Your task to perform on an android device: open app "Fetch Rewards" Image 0: 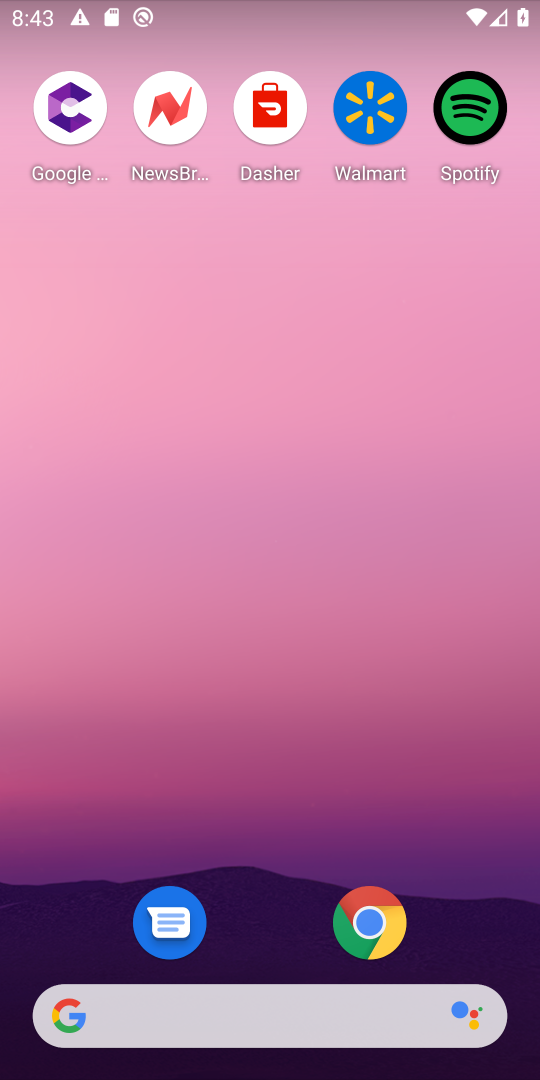
Step 0: drag from (295, 953) to (300, 273)
Your task to perform on an android device: open app "Fetch Rewards" Image 1: 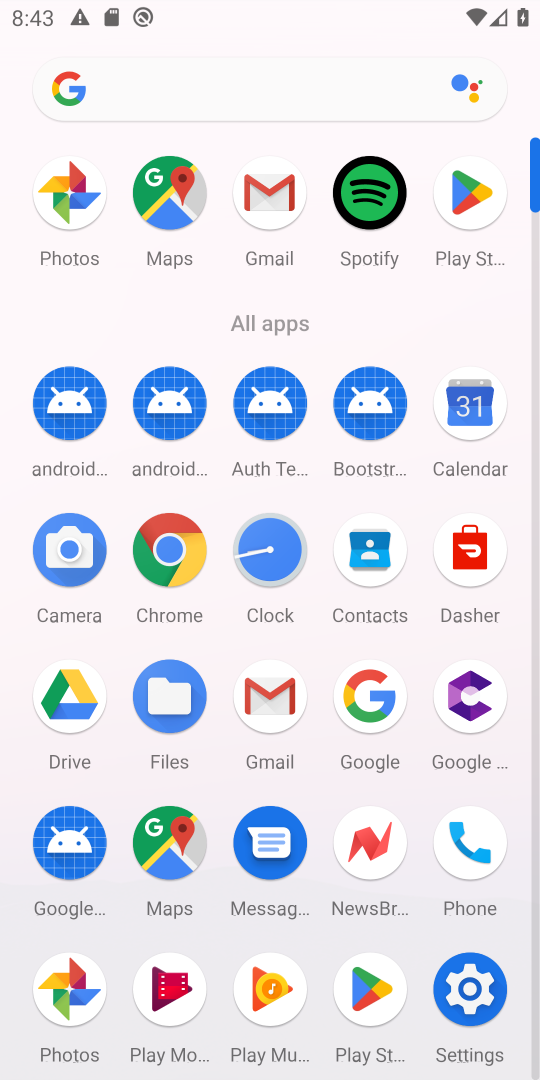
Step 1: click (364, 990)
Your task to perform on an android device: open app "Fetch Rewards" Image 2: 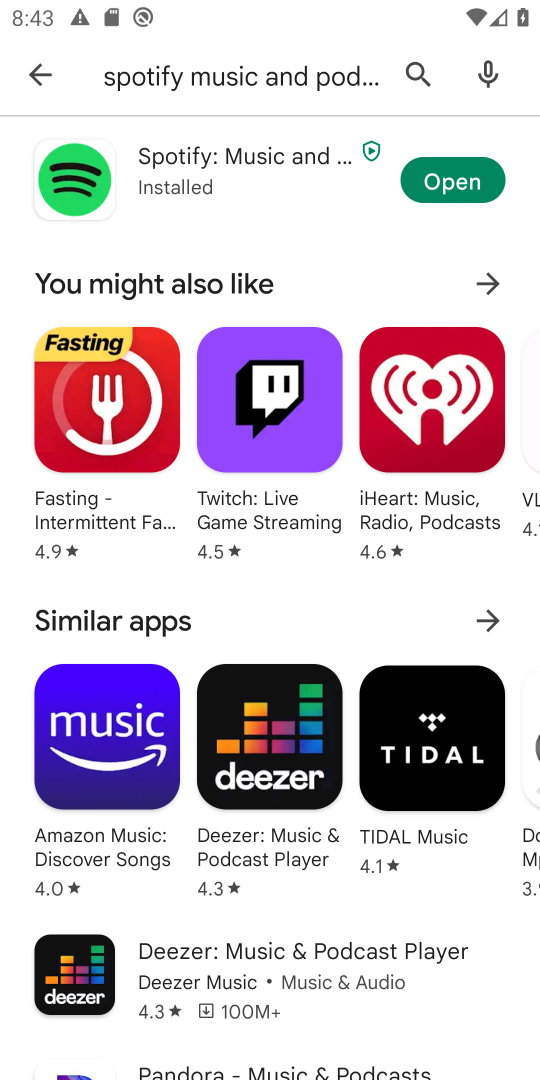
Step 2: click (414, 63)
Your task to perform on an android device: open app "Fetch Rewards" Image 3: 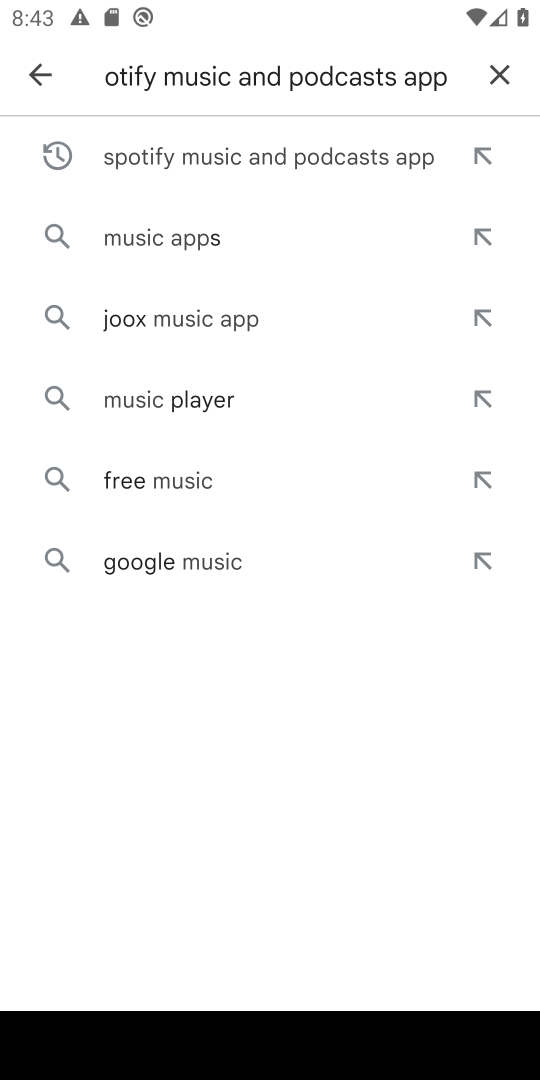
Step 3: click (501, 75)
Your task to perform on an android device: open app "Fetch Rewards" Image 4: 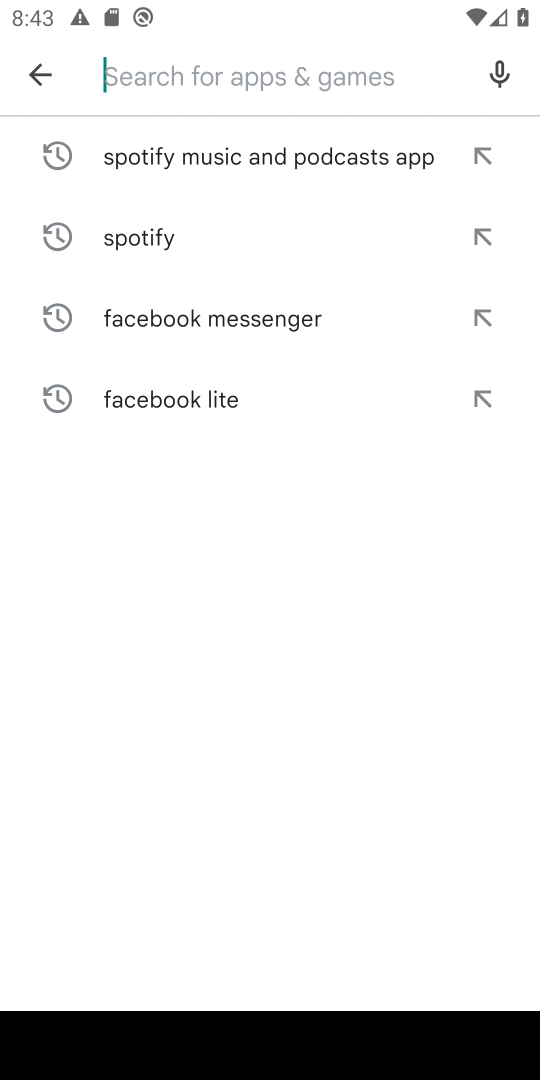
Step 4: type "Fetch Rewards"
Your task to perform on an android device: open app "Fetch Rewards" Image 5: 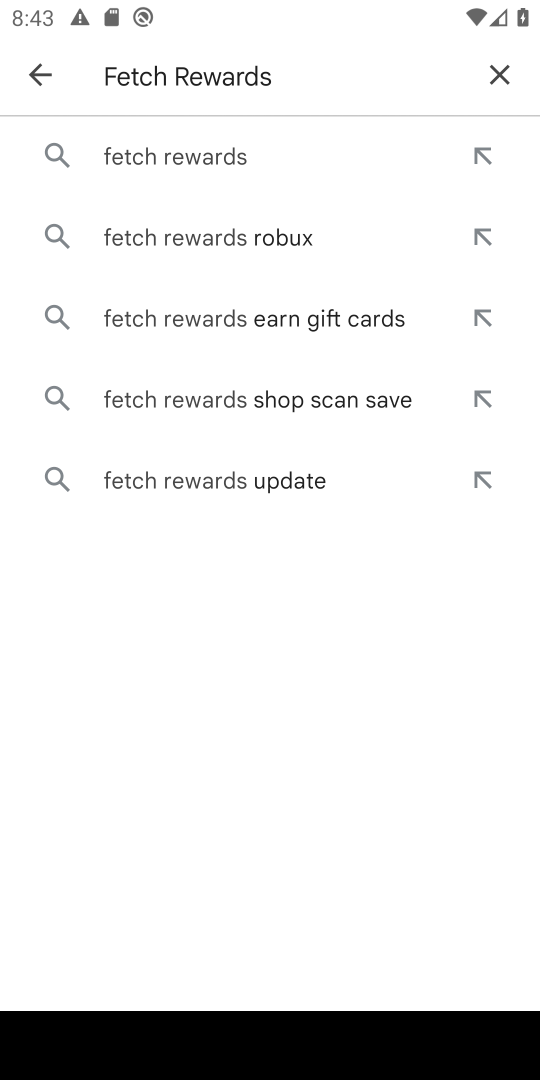
Step 5: click (176, 155)
Your task to perform on an android device: open app "Fetch Rewards" Image 6: 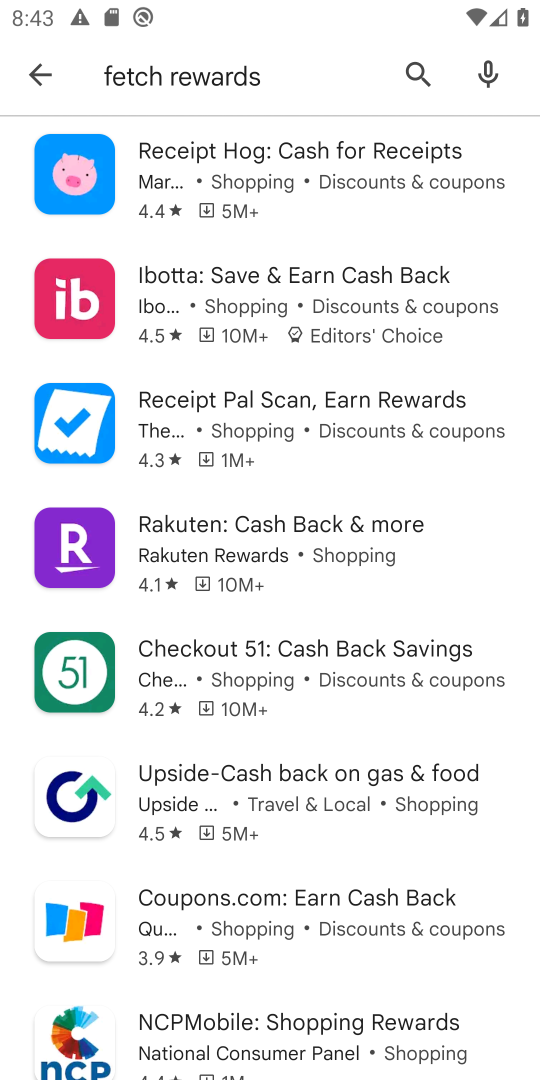
Step 6: task complete